Your task to perform on an android device: clear history in the chrome app Image 0: 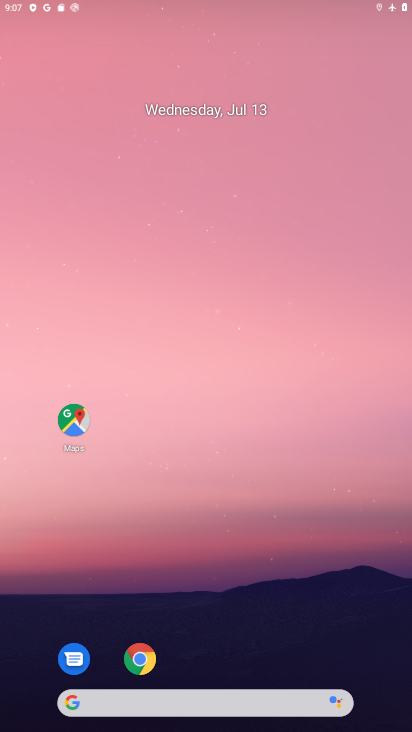
Step 0: press home button
Your task to perform on an android device: clear history in the chrome app Image 1: 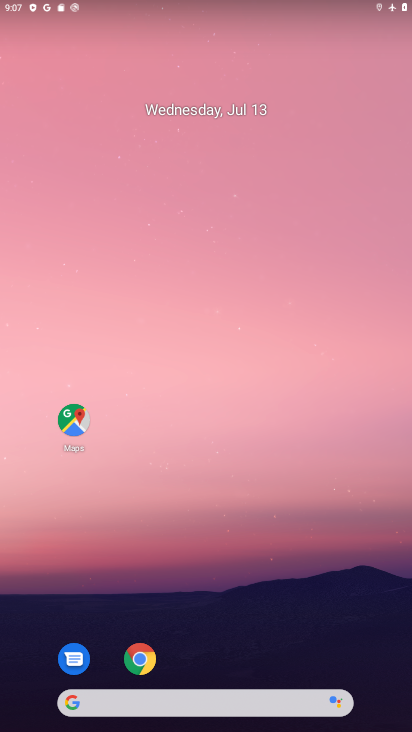
Step 1: click (141, 654)
Your task to perform on an android device: clear history in the chrome app Image 2: 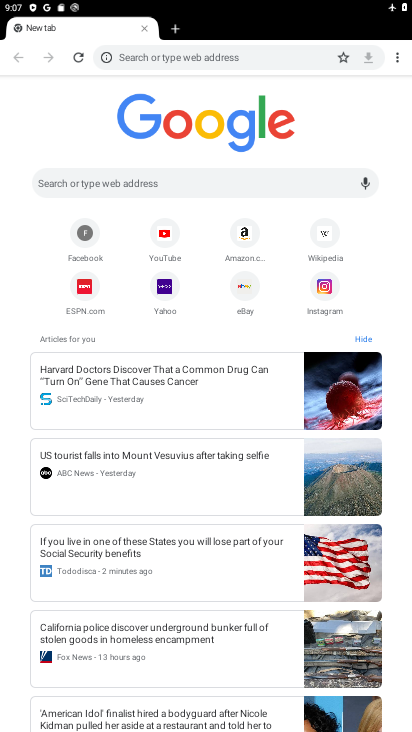
Step 2: click (399, 52)
Your task to perform on an android device: clear history in the chrome app Image 3: 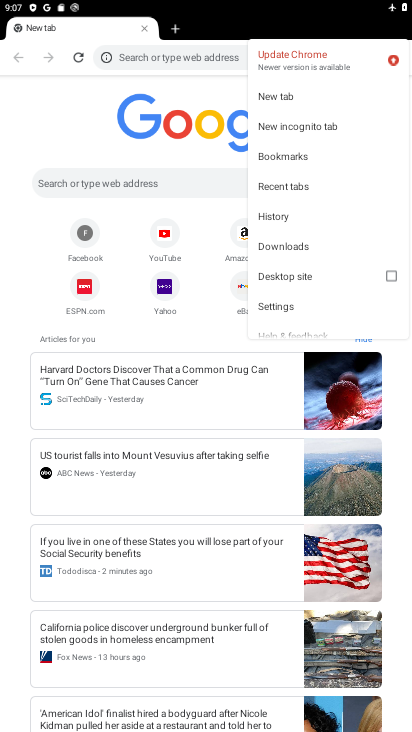
Step 3: click (275, 216)
Your task to perform on an android device: clear history in the chrome app Image 4: 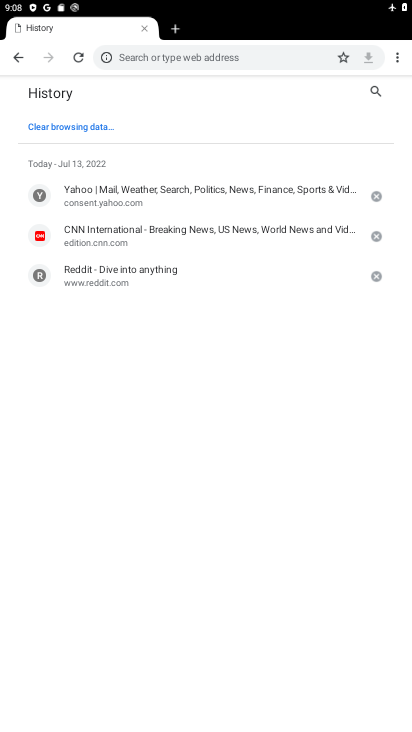
Step 4: click (71, 124)
Your task to perform on an android device: clear history in the chrome app Image 5: 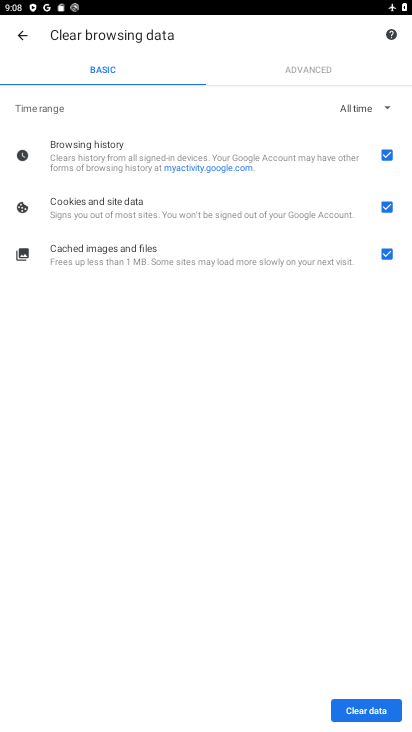
Step 5: click (369, 706)
Your task to perform on an android device: clear history in the chrome app Image 6: 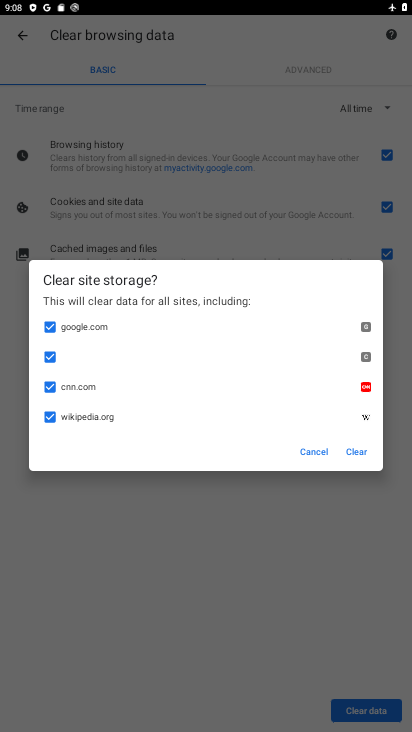
Step 6: click (351, 448)
Your task to perform on an android device: clear history in the chrome app Image 7: 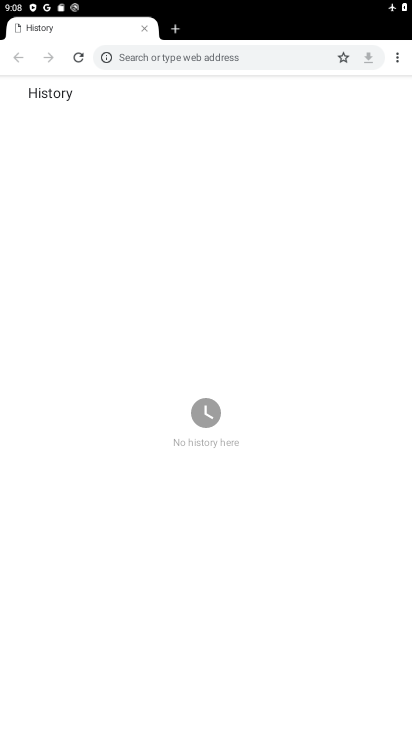
Step 7: task complete